Your task to perform on an android device: Open the calendar and show me this week's events Image 0: 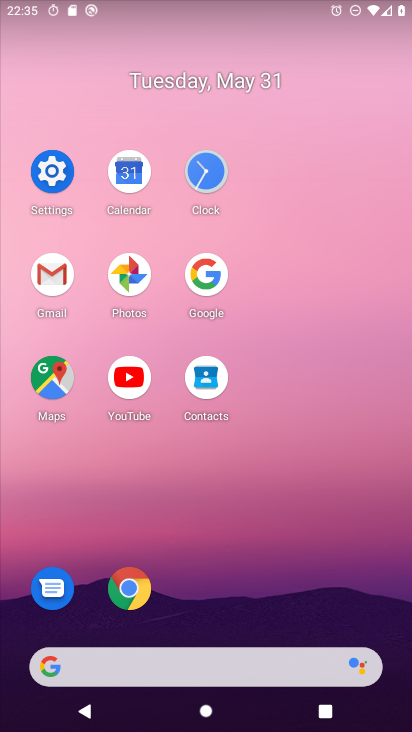
Step 0: click (142, 177)
Your task to perform on an android device: Open the calendar and show me this week's events Image 1: 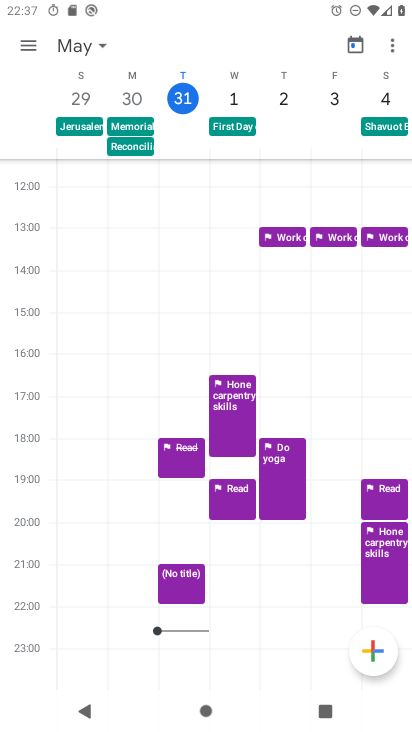
Step 1: task complete